Your task to perform on an android device: How much does a 3 bedroom apartment rent for in Washington DC? Image 0: 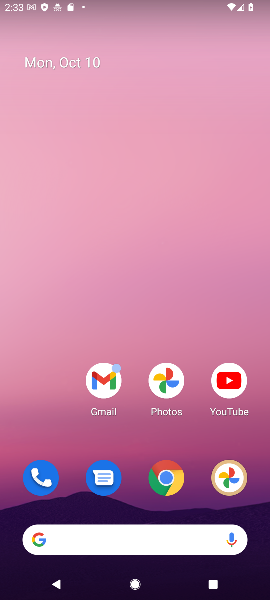
Step 0: click (166, 469)
Your task to perform on an android device: How much does a 3 bedroom apartment rent for in Washington DC? Image 1: 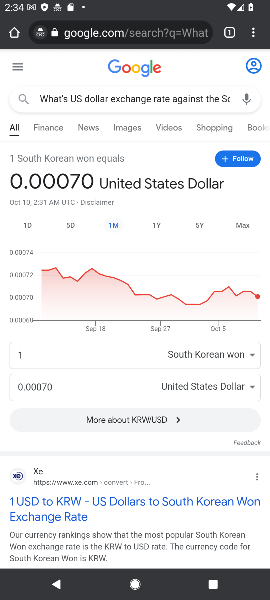
Step 1: click (135, 27)
Your task to perform on an android device: How much does a 3 bedroom apartment rent for in Washington DC? Image 2: 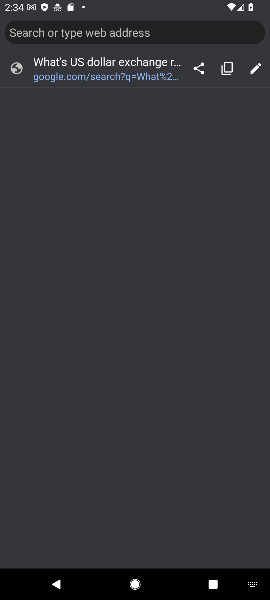
Step 2: type "How much does a 3 bedroom apartment rent for in Washington DC?"
Your task to perform on an android device: How much does a 3 bedroom apartment rent for in Washington DC? Image 3: 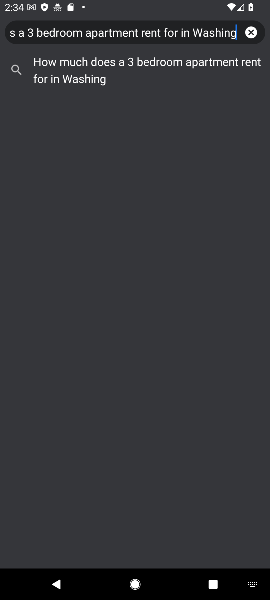
Step 3: click (72, 59)
Your task to perform on an android device: How much does a 3 bedroom apartment rent for in Washington DC? Image 4: 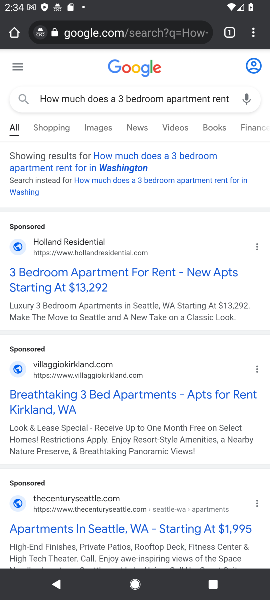
Step 4: click (90, 285)
Your task to perform on an android device: How much does a 3 bedroom apartment rent for in Washington DC? Image 5: 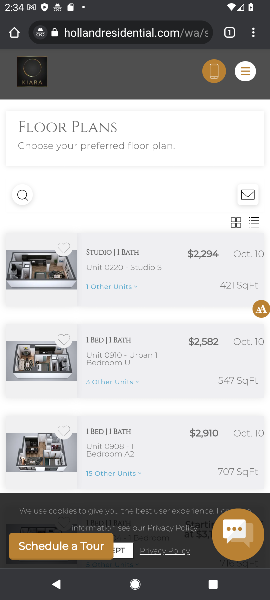
Step 5: task complete